Your task to perform on an android device: Open notification settings Image 0: 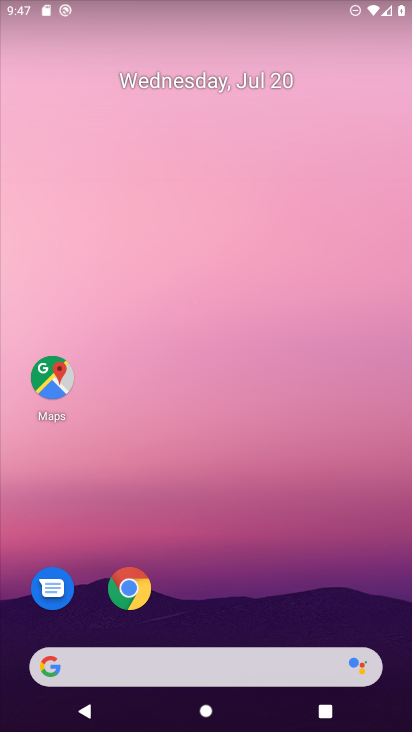
Step 0: drag from (193, 626) to (208, 11)
Your task to perform on an android device: Open notification settings Image 1: 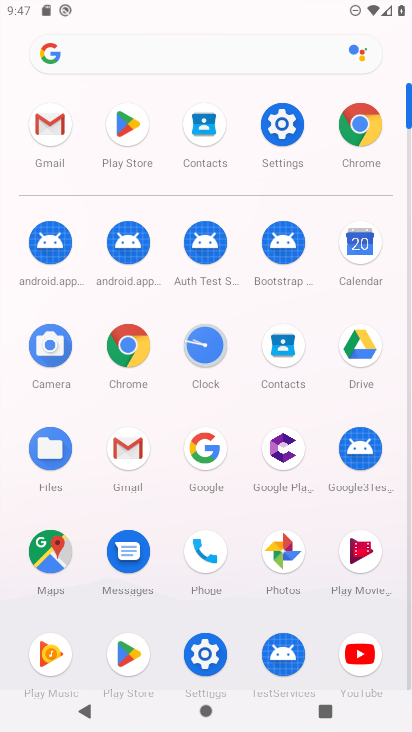
Step 1: click (277, 193)
Your task to perform on an android device: Open notification settings Image 2: 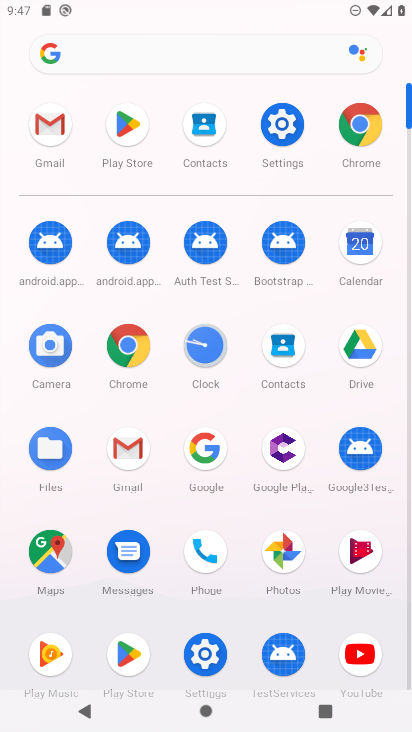
Step 2: click (289, 130)
Your task to perform on an android device: Open notification settings Image 3: 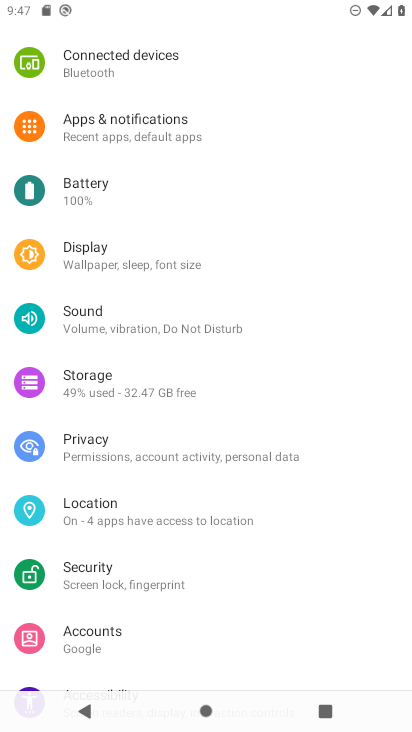
Step 3: click (191, 148)
Your task to perform on an android device: Open notification settings Image 4: 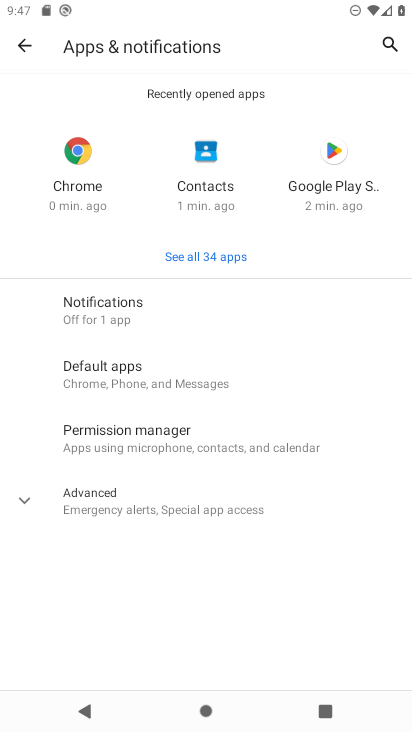
Step 4: task complete